Your task to perform on an android device: Open Google Chrome Image 0: 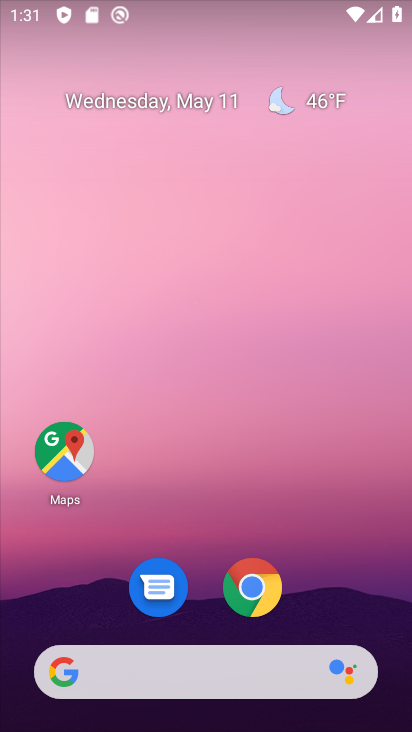
Step 0: press home button
Your task to perform on an android device: Open Google Chrome Image 1: 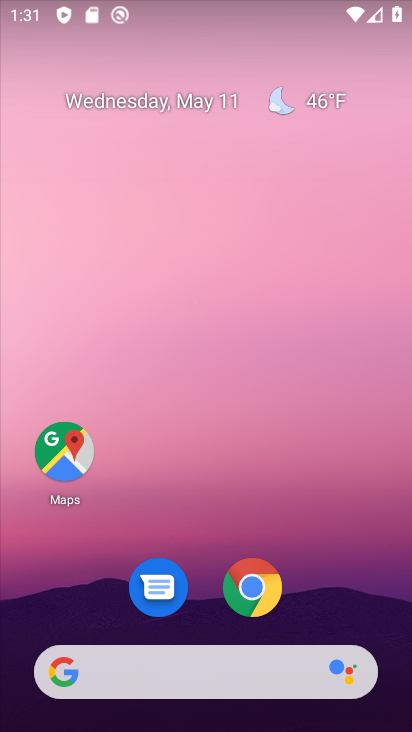
Step 1: press home button
Your task to perform on an android device: Open Google Chrome Image 2: 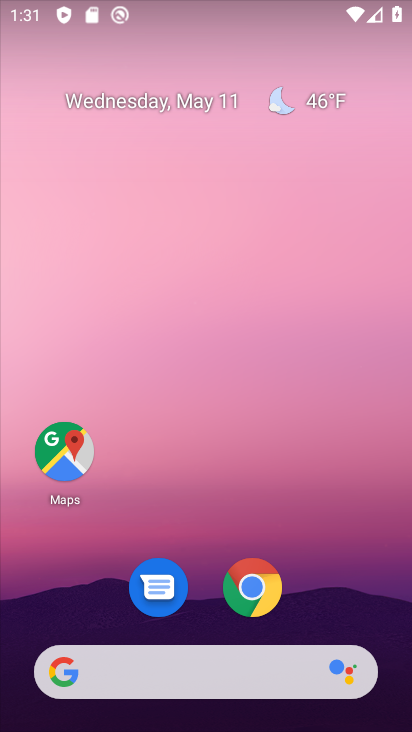
Step 2: click (233, 611)
Your task to perform on an android device: Open Google Chrome Image 3: 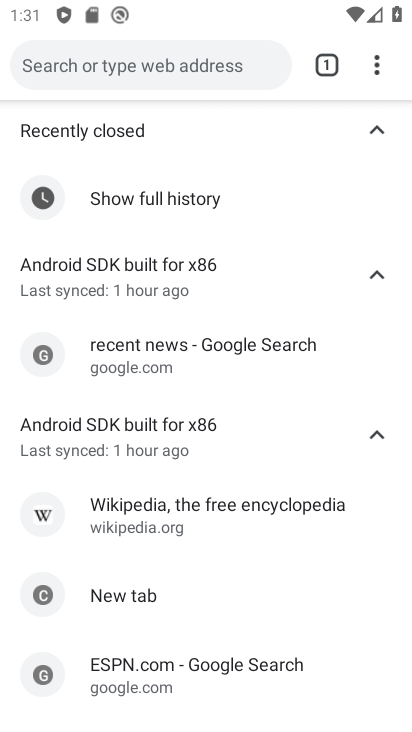
Step 3: task complete